Your task to perform on an android device: Open Youtube and go to the subscriptions tab Image 0: 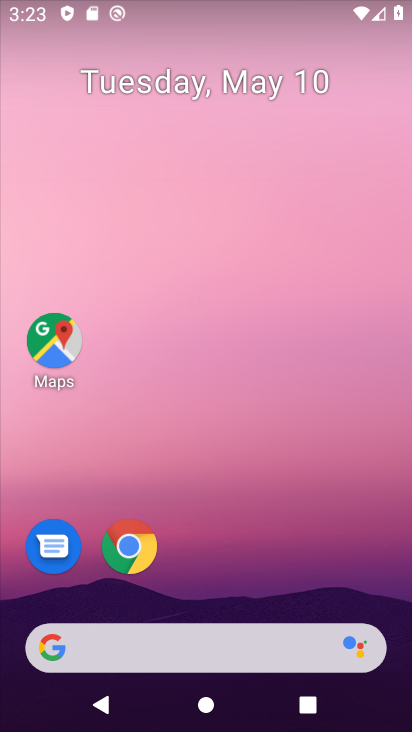
Step 0: drag from (156, 618) to (273, 129)
Your task to perform on an android device: Open Youtube and go to the subscriptions tab Image 1: 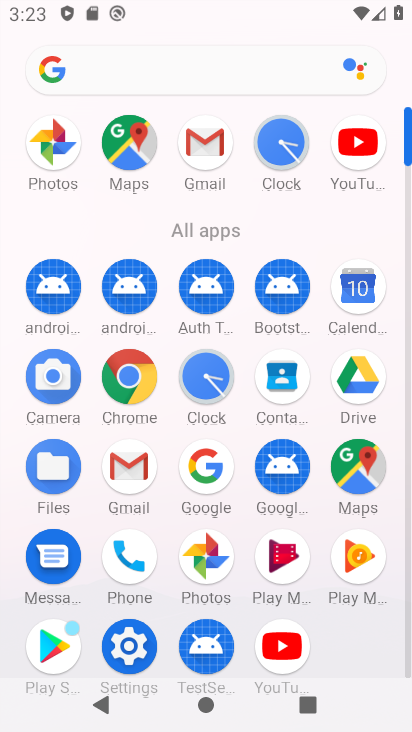
Step 1: click (287, 653)
Your task to perform on an android device: Open Youtube and go to the subscriptions tab Image 2: 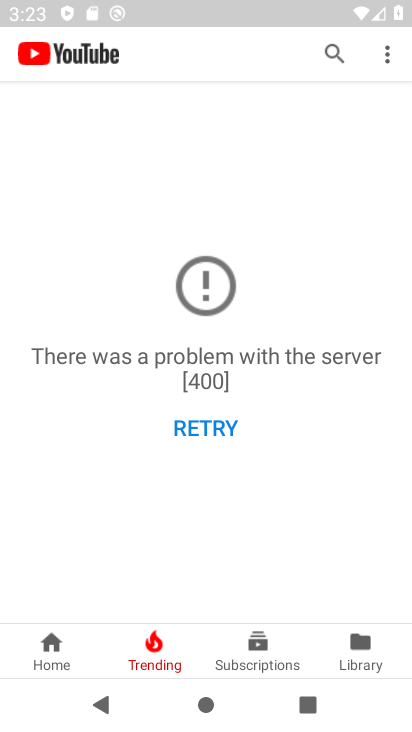
Step 2: task complete